Your task to perform on an android device: search for outdoor chairs on article.com Image 0: 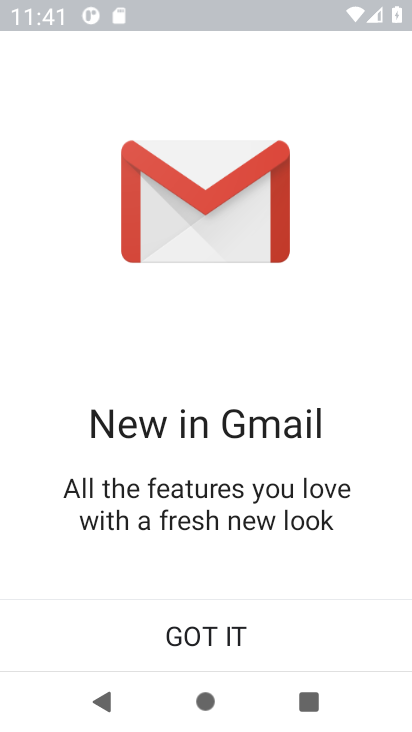
Step 0: press home button
Your task to perform on an android device: search for outdoor chairs on article.com Image 1: 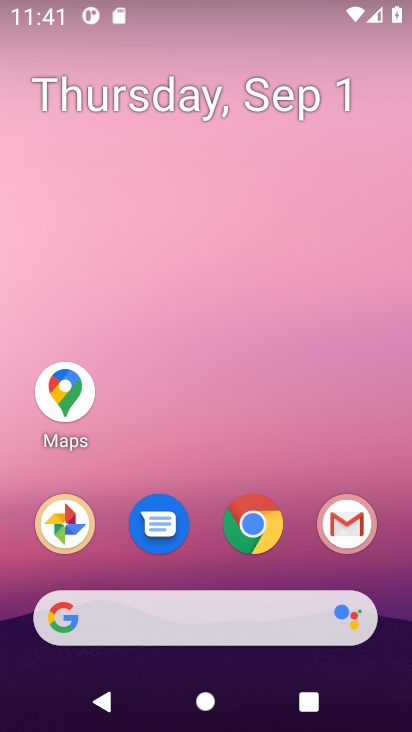
Step 1: click (240, 621)
Your task to perform on an android device: search for outdoor chairs on article.com Image 2: 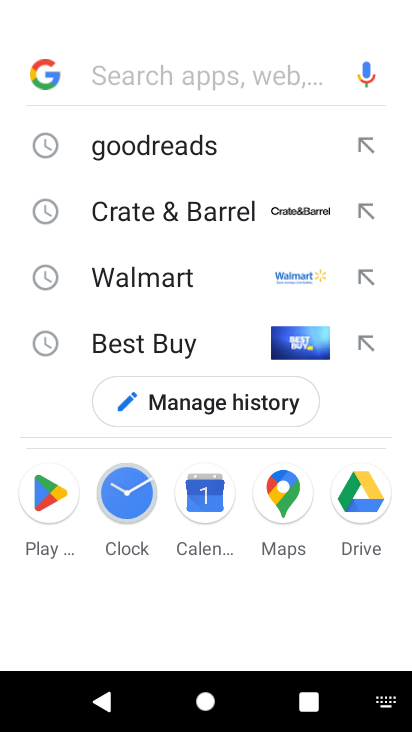
Step 2: press enter
Your task to perform on an android device: search for outdoor chairs on article.com Image 3: 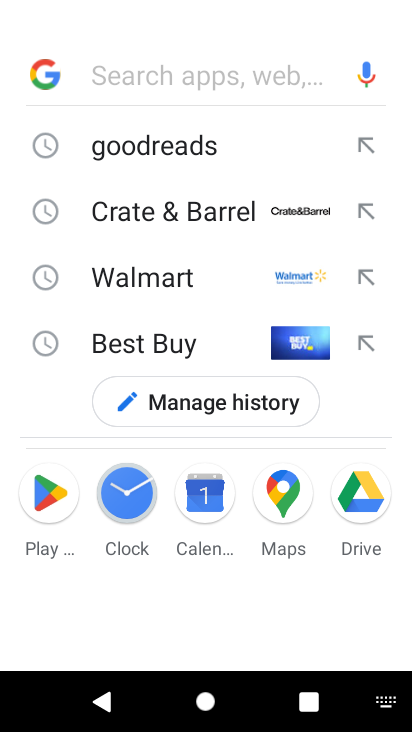
Step 3: type "article.com"
Your task to perform on an android device: search for outdoor chairs on article.com Image 4: 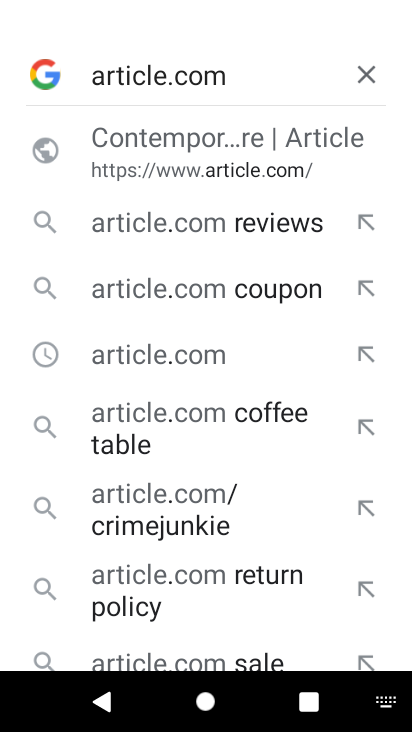
Step 4: click (257, 159)
Your task to perform on an android device: search for outdoor chairs on article.com Image 5: 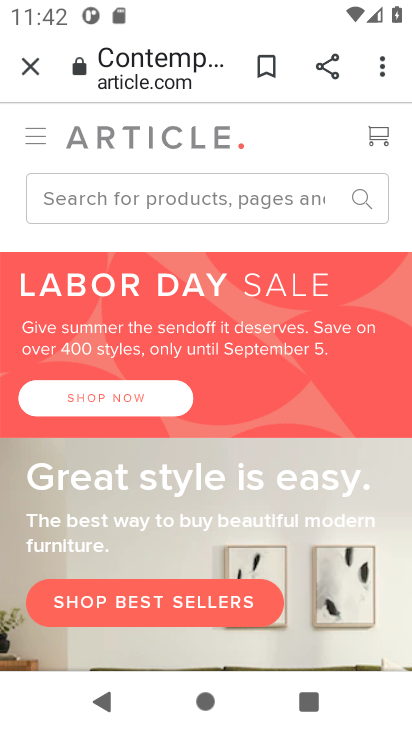
Step 5: click (226, 201)
Your task to perform on an android device: search for outdoor chairs on article.com Image 6: 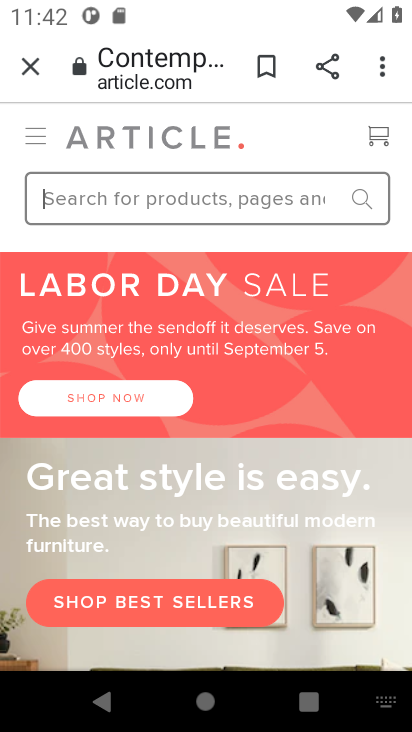
Step 6: press enter
Your task to perform on an android device: search for outdoor chairs on article.com Image 7: 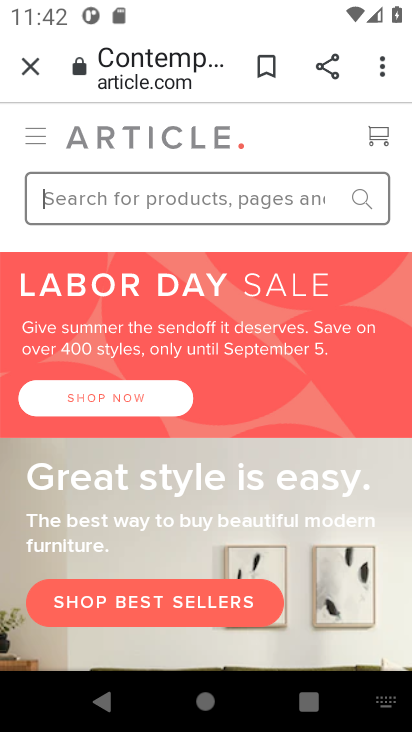
Step 7: type "outdoor chairs"
Your task to perform on an android device: search for outdoor chairs on article.com Image 8: 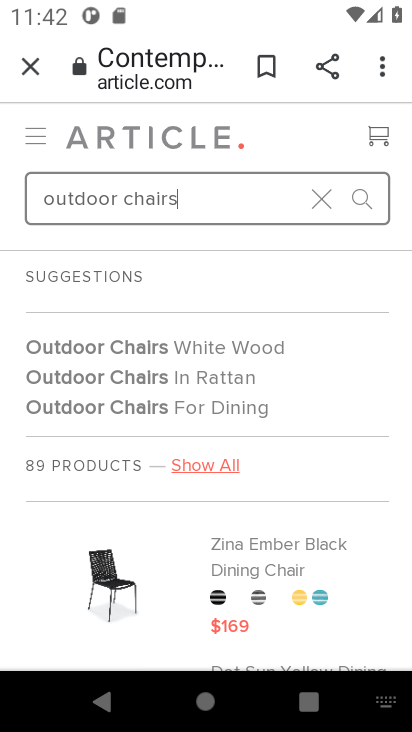
Step 8: click (360, 196)
Your task to perform on an android device: search for outdoor chairs on article.com Image 9: 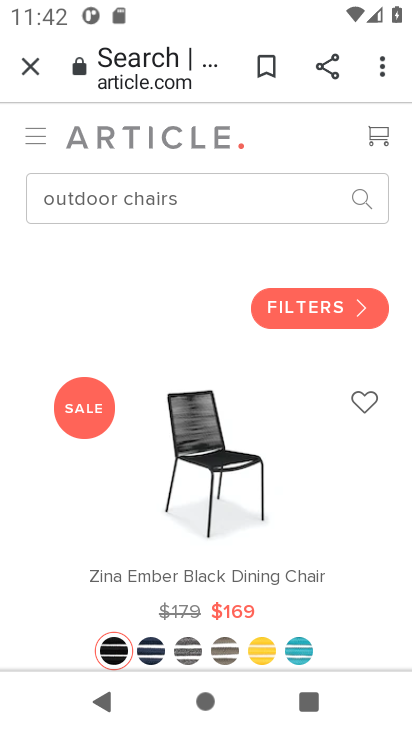
Step 9: task complete